Your task to perform on an android device: Open Chrome and go to the settings page Image 0: 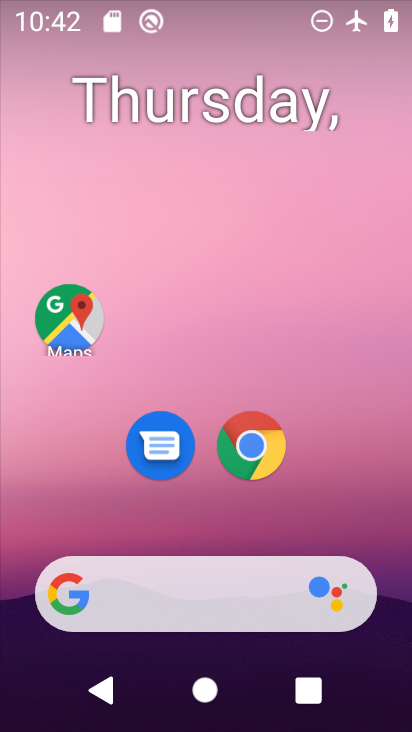
Step 0: click (256, 462)
Your task to perform on an android device: Open Chrome and go to the settings page Image 1: 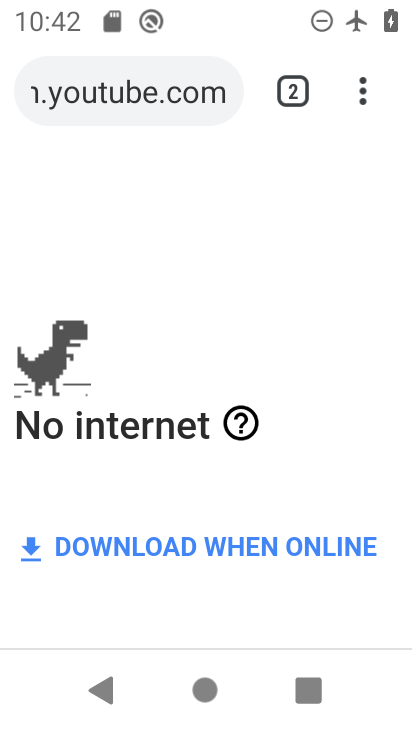
Step 1: click (365, 97)
Your task to perform on an android device: Open Chrome and go to the settings page Image 2: 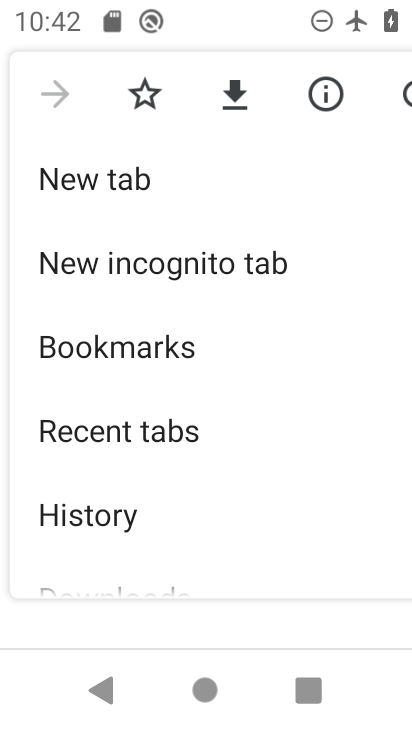
Step 2: drag from (209, 551) to (192, 56)
Your task to perform on an android device: Open Chrome and go to the settings page Image 3: 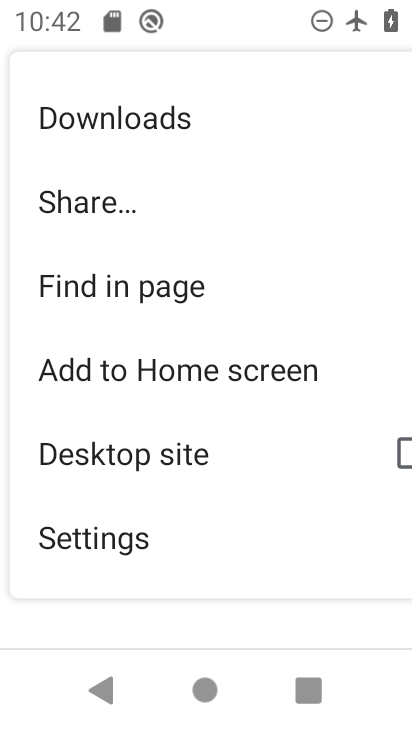
Step 3: click (94, 511)
Your task to perform on an android device: Open Chrome and go to the settings page Image 4: 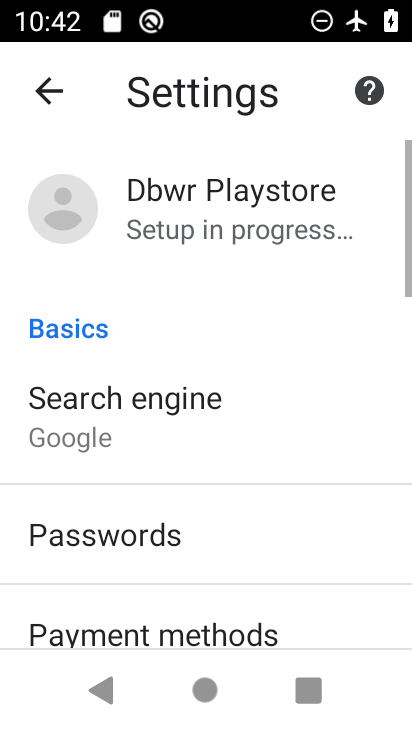
Step 4: task complete